Your task to perform on an android device: turn on bluetooth scan Image 0: 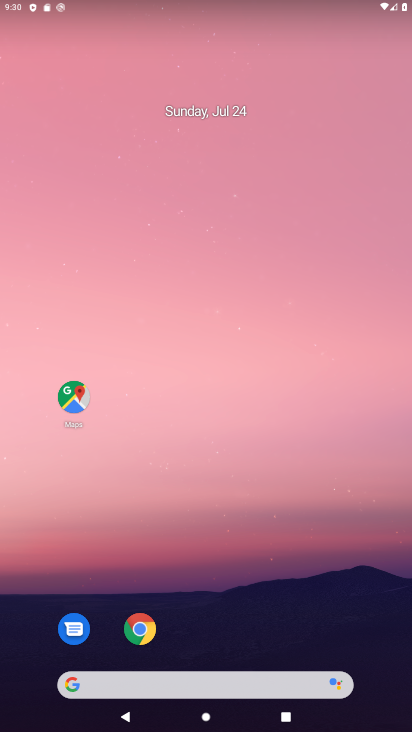
Step 0: press home button
Your task to perform on an android device: turn on bluetooth scan Image 1: 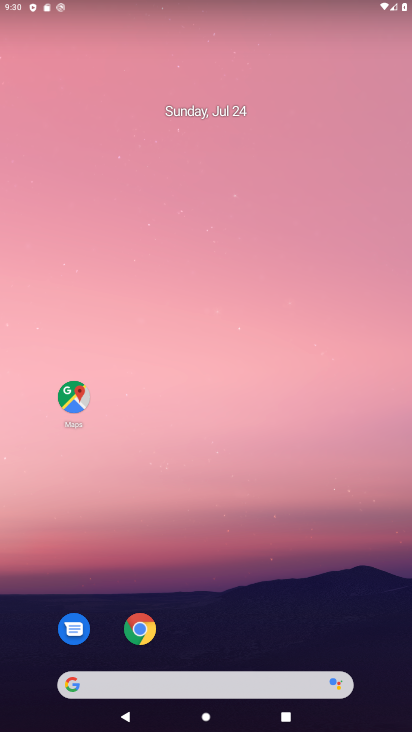
Step 1: drag from (168, 685) to (287, 51)
Your task to perform on an android device: turn on bluetooth scan Image 2: 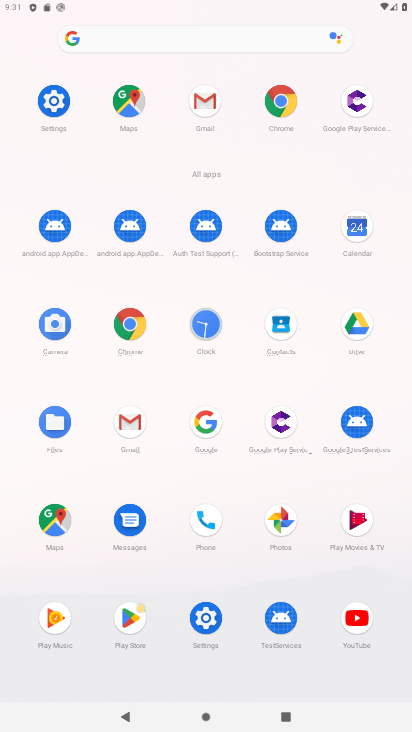
Step 2: click (53, 100)
Your task to perform on an android device: turn on bluetooth scan Image 3: 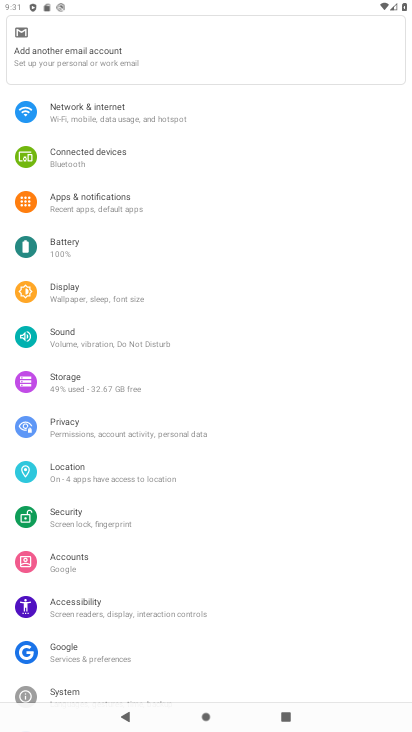
Step 3: click (69, 477)
Your task to perform on an android device: turn on bluetooth scan Image 4: 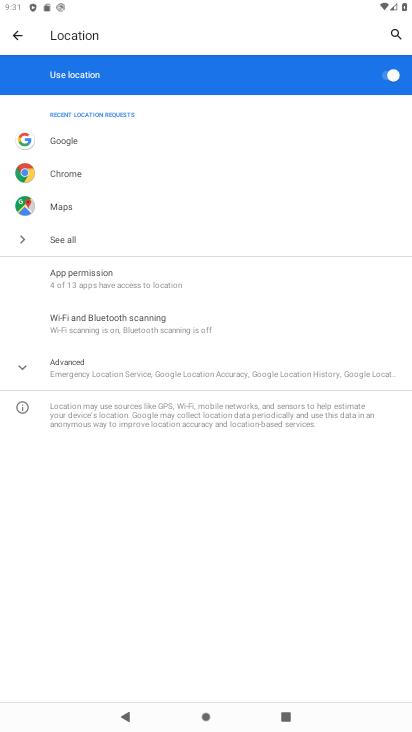
Step 4: click (148, 328)
Your task to perform on an android device: turn on bluetooth scan Image 5: 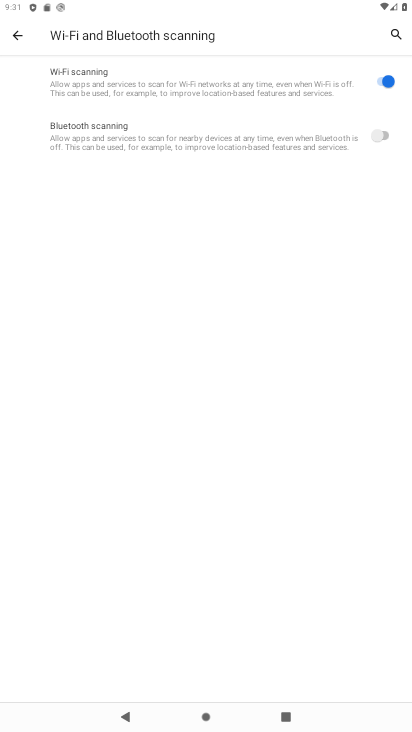
Step 5: click (379, 136)
Your task to perform on an android device: turn on bluetooth scan Image 6: 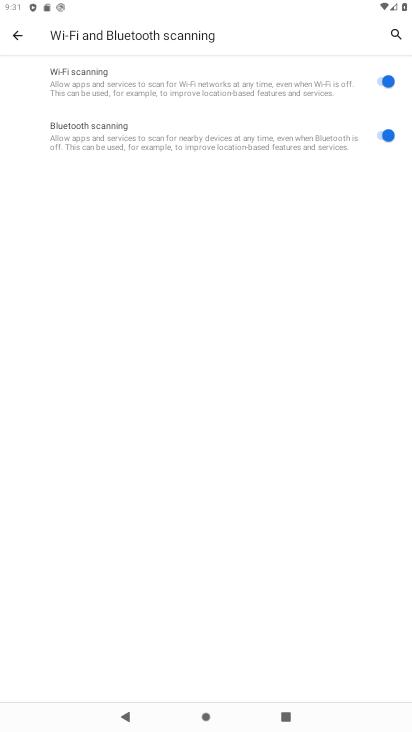
Step 6: task complete